Your task to perform on an android device: find snoozed emails in the gmail app Image 0: 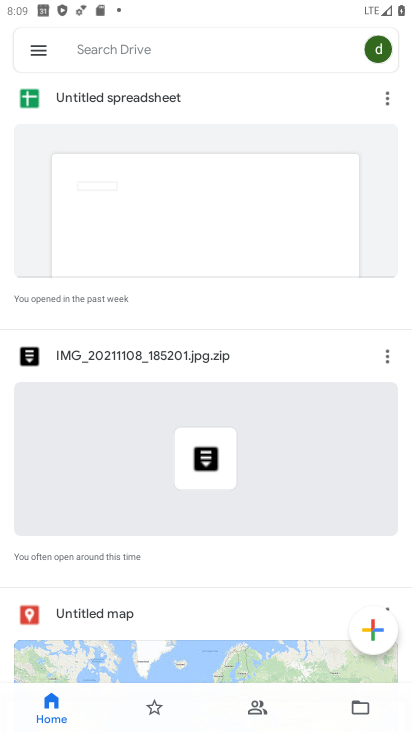
Step 0: press home button
Your task to perform on an android device: find snoozed emails in the gmail app Image 1: 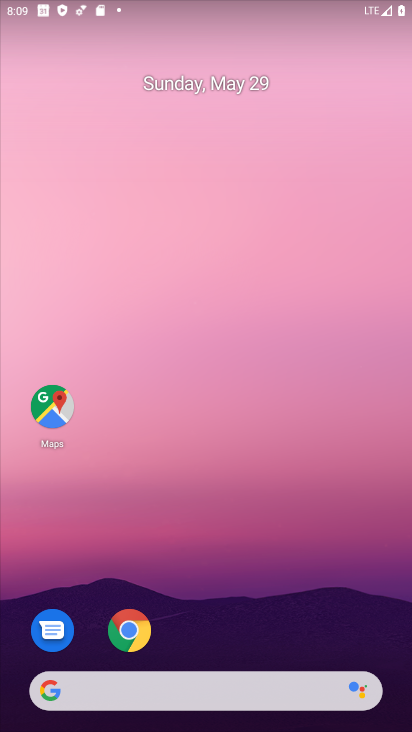
Step 1: drag from (228, 652) to (324, 32)
Your task to perform on an android device: find snoozed emails in the gmail app Image 2: 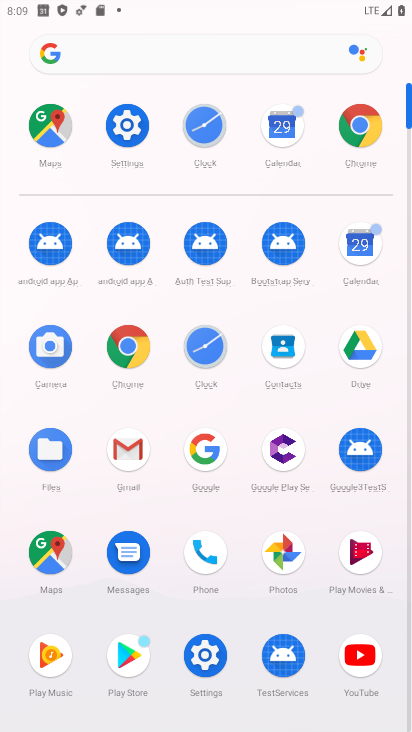
Step 2: click (137, 472)
Your task to perform on an android device: find snoozed emails in the gmail app Image 3: 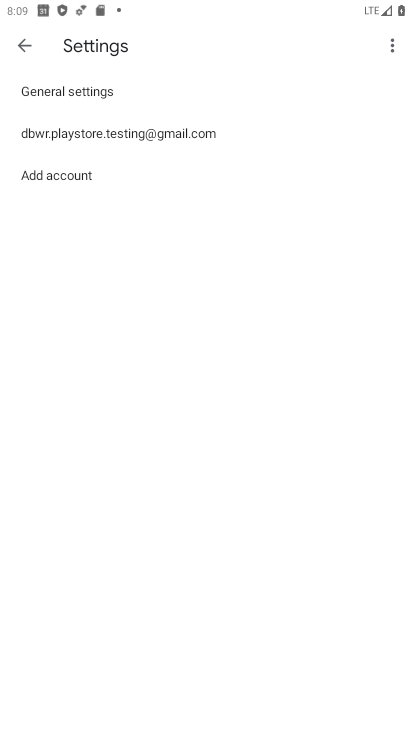
Step 3: click (26, 39)
Your task to perform on an android device: find snoozed emails in the gmail app Image 4: 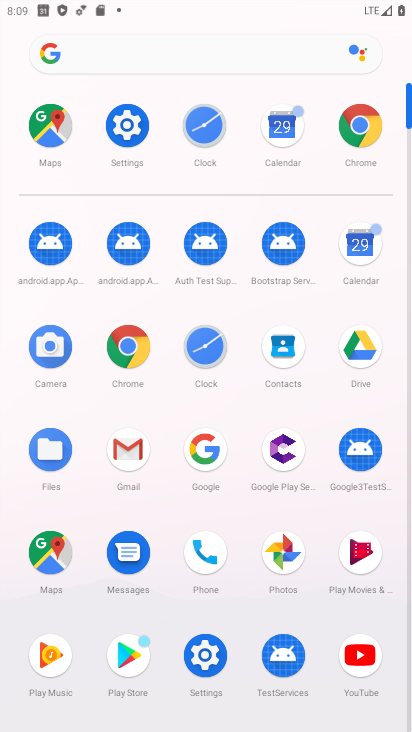
Step 4: click (133, 442)
Your task to perform on an android device: find snoozed emails in the gmail app Image 5: 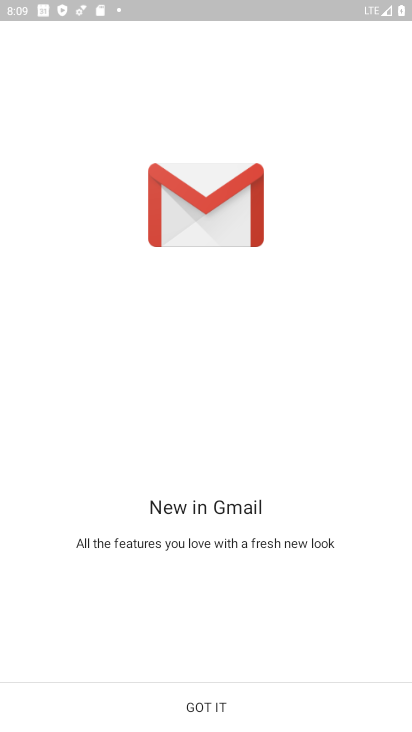
Step 5: click (223, 702)
Your task to perform on an android device: find snoozed emails in the gmail app Image 6: 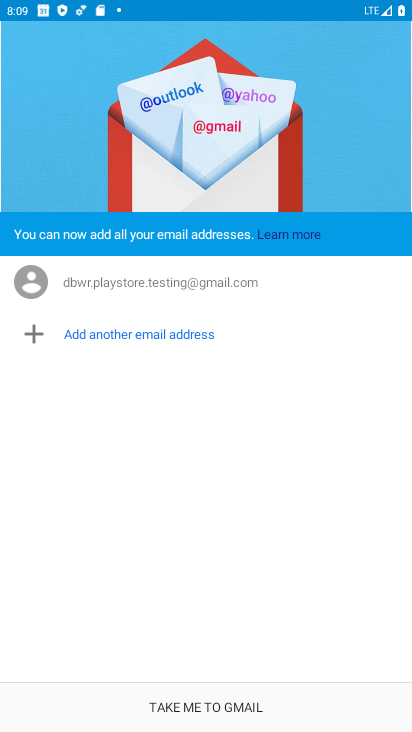
Step 6: click (223, 702)
Your task to perform on an android device: find snoozed emails in the gmail app Image 7: 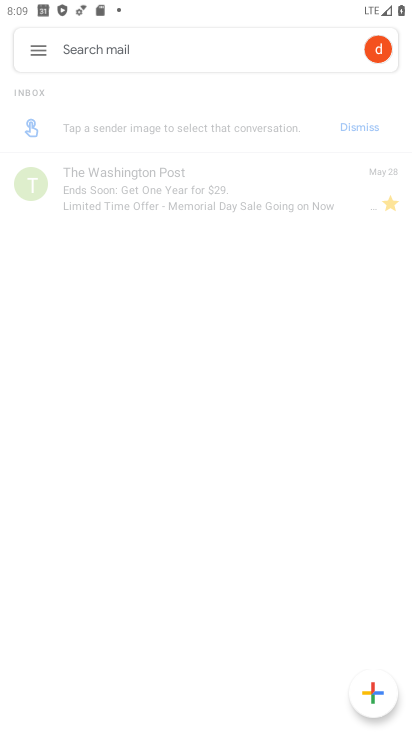
Step 7: click (42, 61)
Your task to perform on an android device: find snoozed emails in the gmail app Image 8: 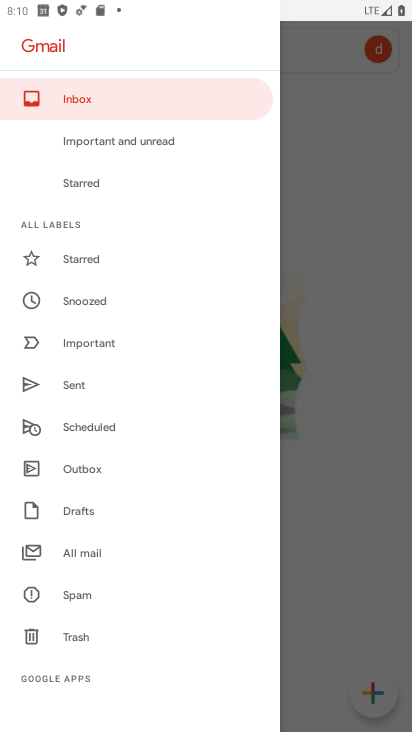
Step 8: click (78, 290)
Your task to perform on an android device: find snoozed emails in the gmail app Image 9: 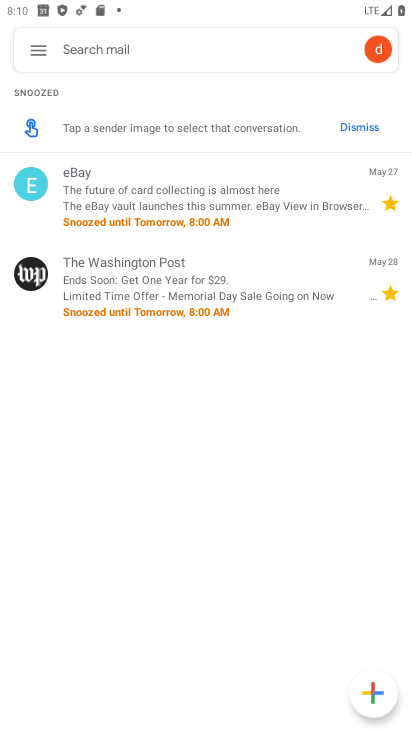
Step 9: task complete